Your task to perform on an android device: Show me recent news Image 0: 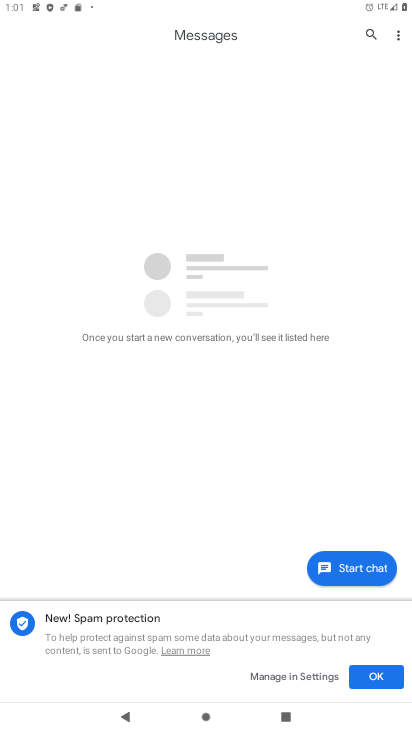
Step 0: drag from (256, 563) to (203, 161)
Your task to perform on an android device: Show me recent news Image 1: 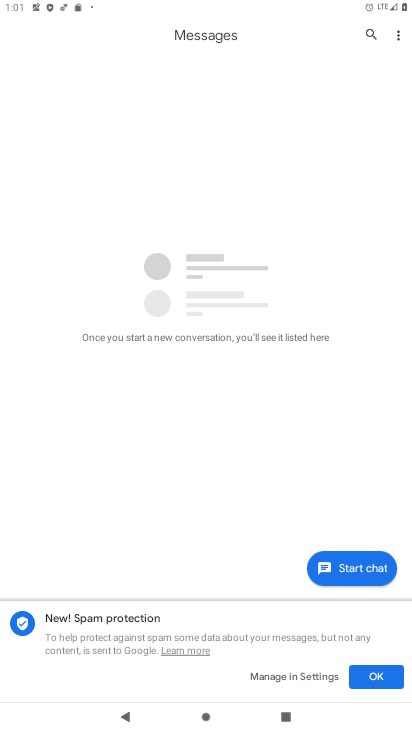
Step 1: task complete